Your task to perform on an android device: What's on my calendar today? Image 0: 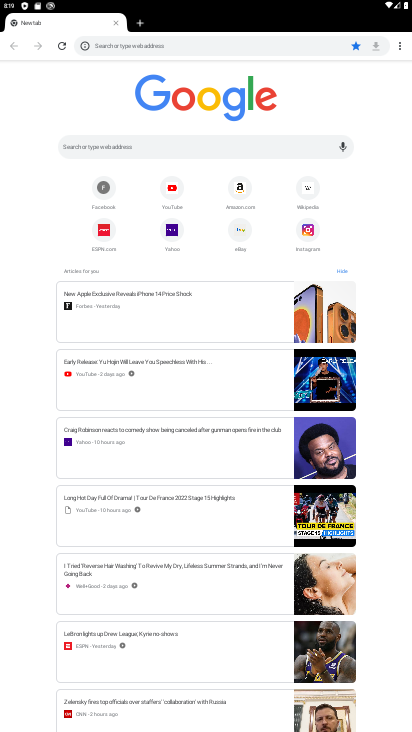
Step 0: press home button
Your task to perform on an android device: What's on my calendar today? Image 1: 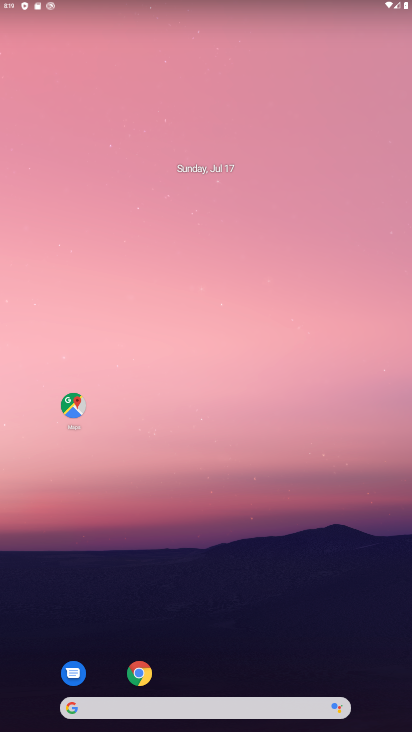
Step 1: drag from (345, 452) to (242, 2)
Your task to perform on an android device: What's on my calendar today? Image 2: 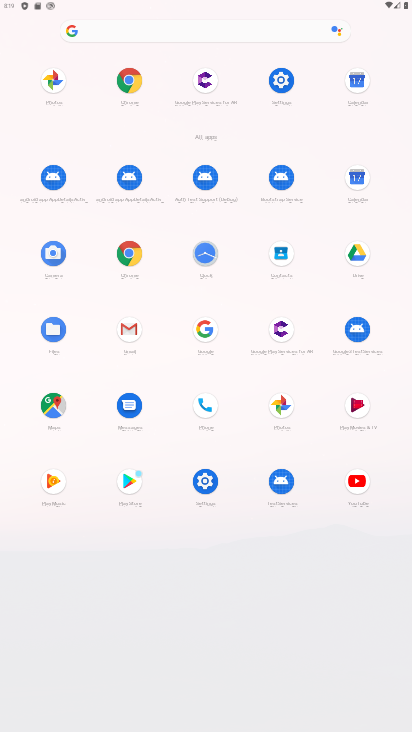
Step 2: click (359, 179)
Your task to perform on an android device: What's on my calendar today? Image 3: 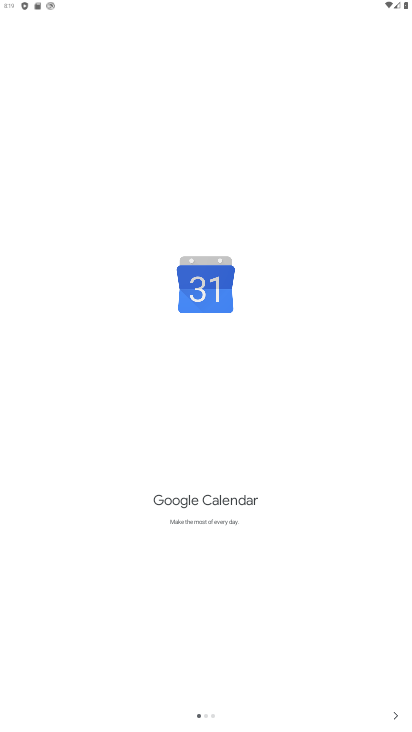
Step 3: click (391, 712)
Your task to perform on an android device: What's on my calendar today? Image 4: 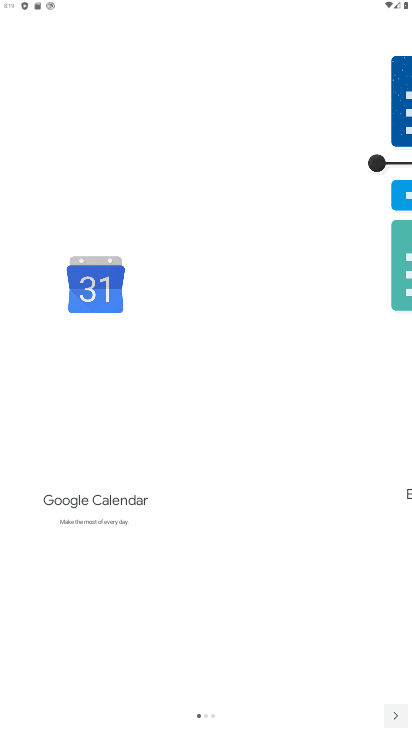
Step 4: click (391, 712)
Your task to perform on an android device: What's on my calendar today? Image 5: 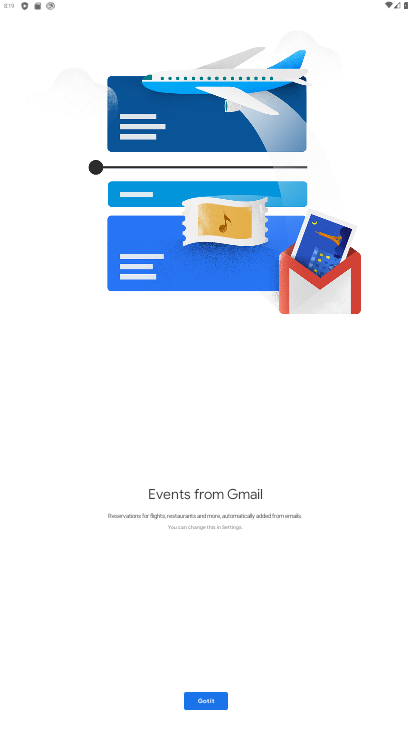
Step 5: click (221, 702)
Your task to perform on an android device: What's on my calendar today? Image 6: 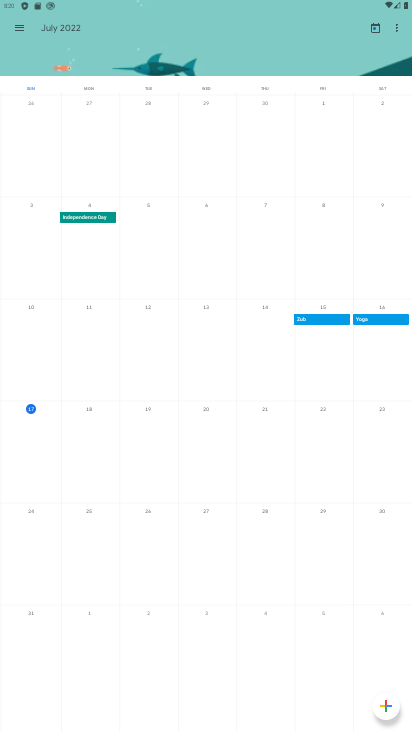
Step 6: click (23, 408)
Your task to perform on an android device: What's on my calendar today? Image 7: 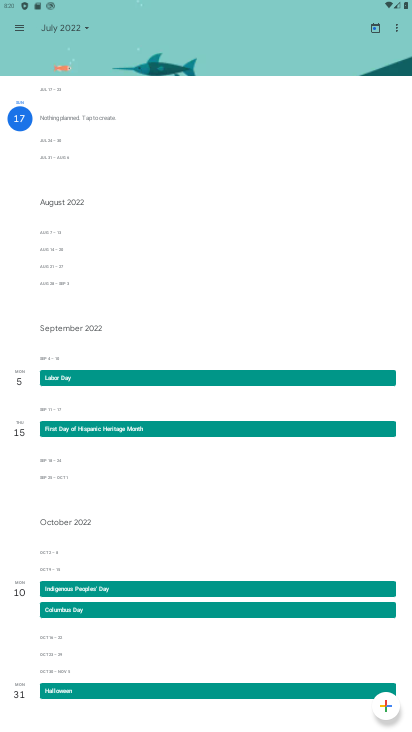
Step 7: task complete